Your task to perform on an android device: turn on the 24-hour format for clock Image 0: 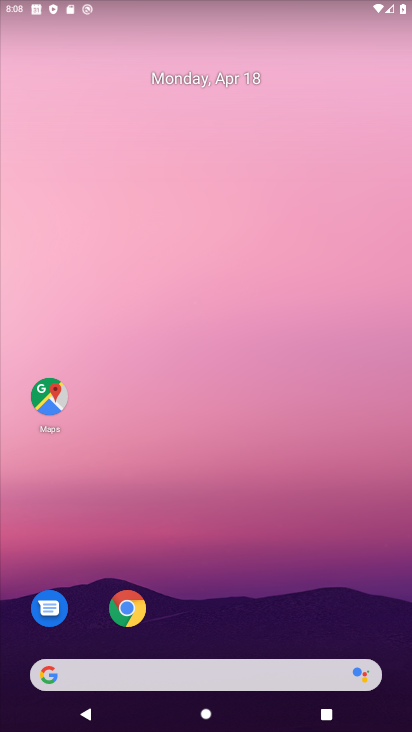
Step 0: drag from (257, 554) to (230, 152)
Your task to perform on an android device: turn on the 24-hour format for clock Image 1: 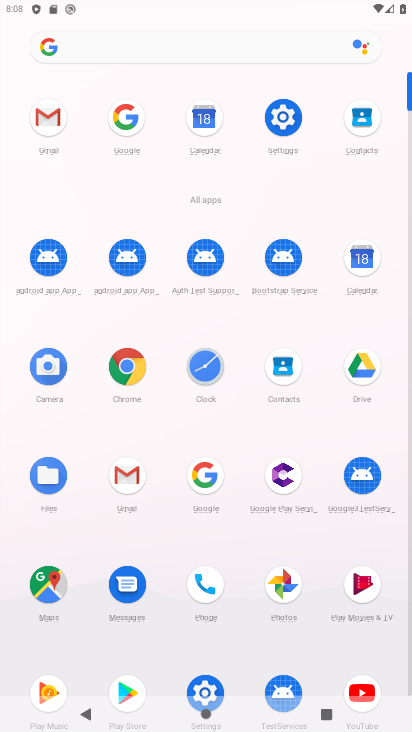
Step 1: click (206, 369)
Your task to perform on an android device: turn on the 24-hour format for clock Image 2: 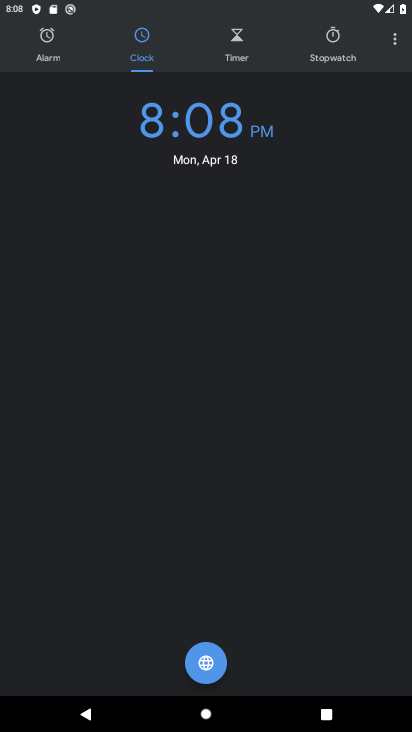
Step 2: click (392, 35)
Your task to perform on an android device: turn on the 24-hour format for clock Image 3: 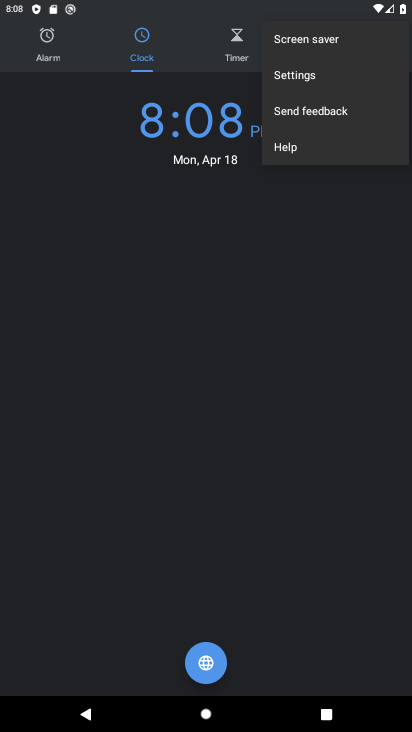
Step 3: click (290, 76)
Your task to perform on an android device: turn on the 24-hour format for clock Image 4: 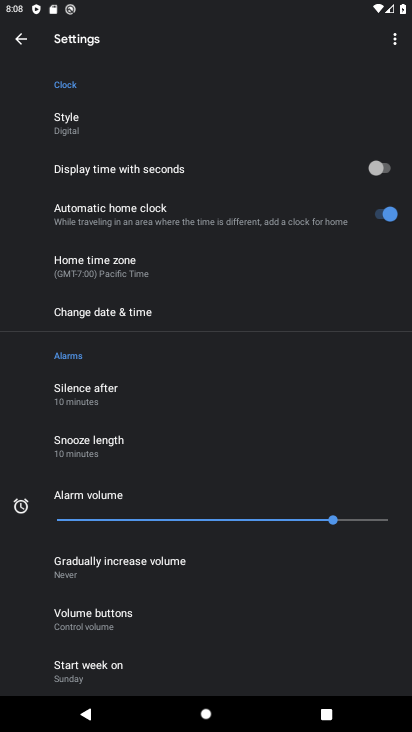
Step 4: click (109, 307)
Your task to perform on an android device: turn on the 24-hour format for clock Image 5: 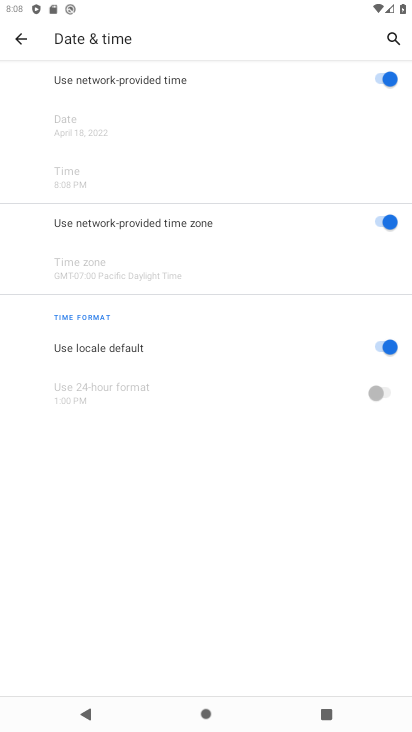
Step 5: click (383, 341)
Your task to perform on an android device: turn on the 24-hour format for clock Image 6: 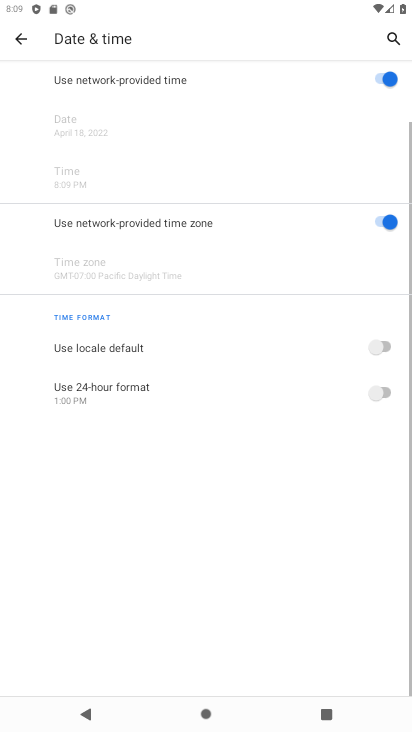
Step 6: click (375, 395)
Your task to perform on an android device: turn on the 24-hour format for clock Image 7: 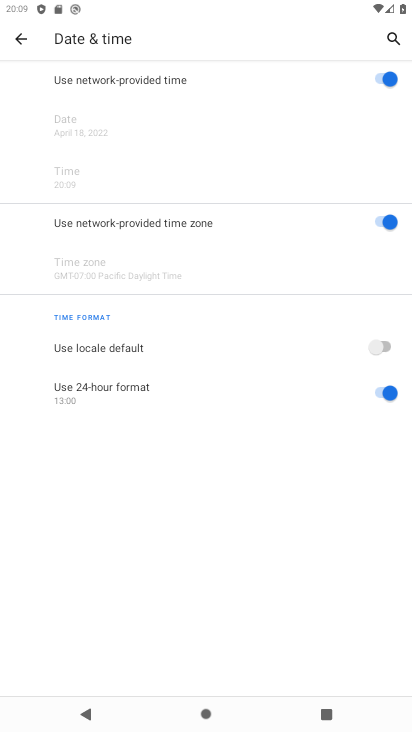
Step 7: task complete